Your task to perform on an android device: toggle show notifications on the lock screen Image 0: 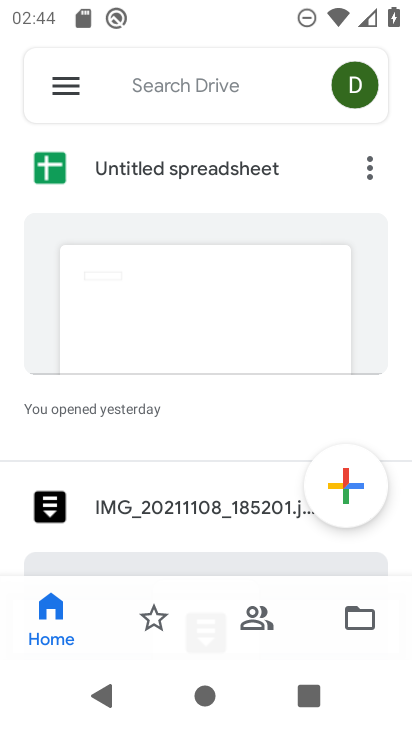
Step 0: press home button
Your task to perform on an android device: toggle show notifications on the lock screen Image 1: 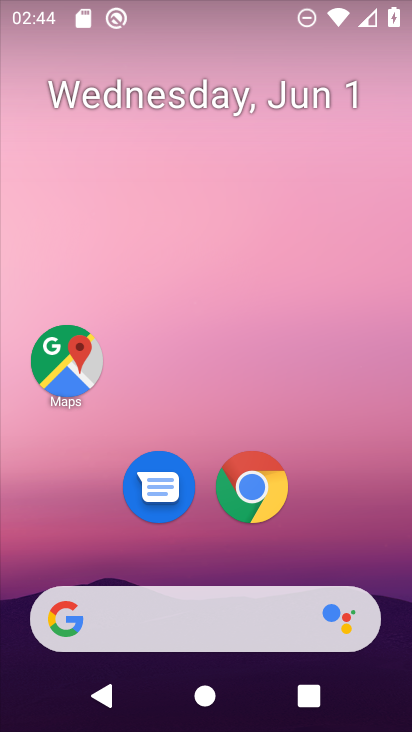
Step 1: drag from (325, 527) to (299, 163)
Your task to perform on an android device: toggle show notifications on the lock screen Image 2: 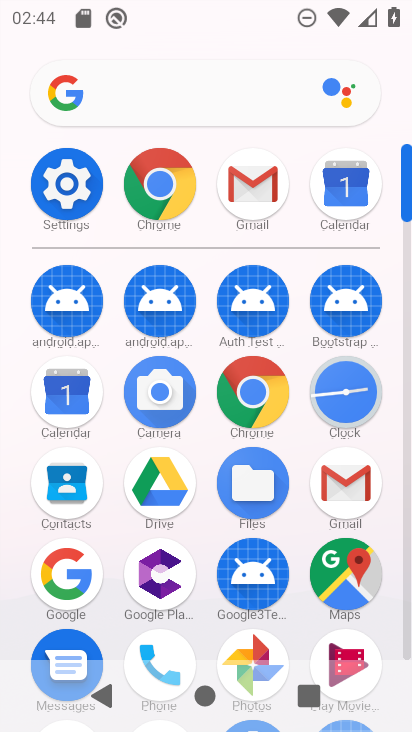
Step 2: click (54, 175)
Your task to perform on an android device: toggle show notifications on the lock screen Image 3: 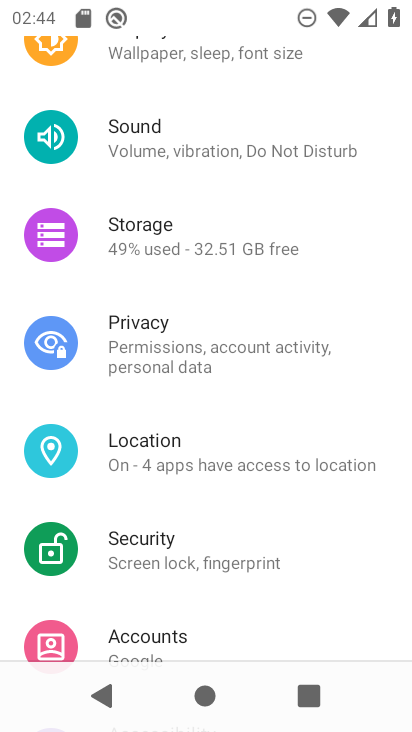
Step 3: drag from (209, 161) to (227, 603)
Your task to perform on an android device: toggle show notifications on the lock screen Image 4: 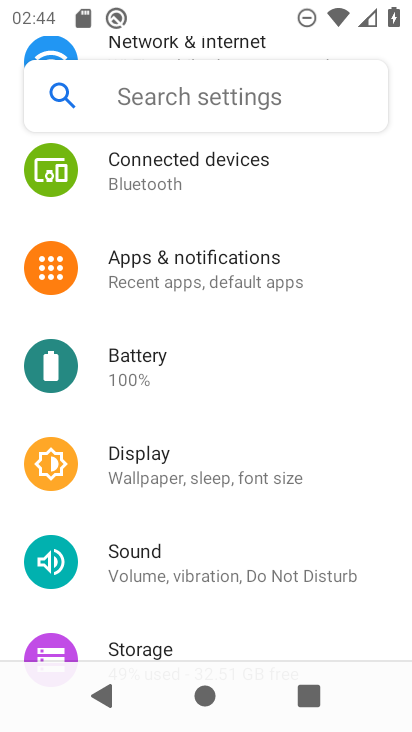
Step 4: drag from (155, 195) to (198, 582)
Your task to perform on an android device: toggle show notifications on the lock screen Image 5: 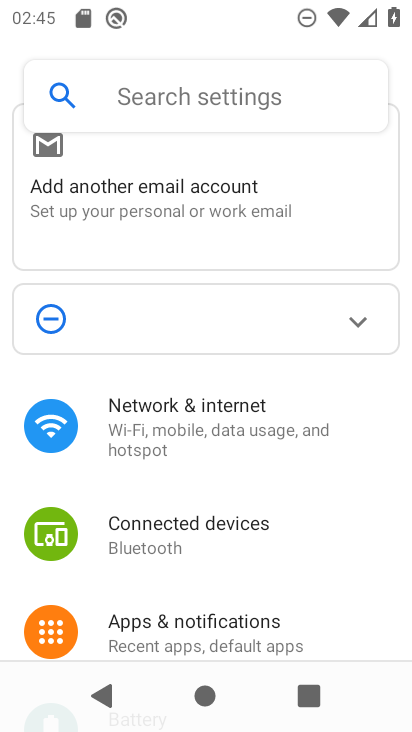
Step 5: click (250, 622)
Your task to perform on an android device: toggle show notifications on the lock screen Image 6: 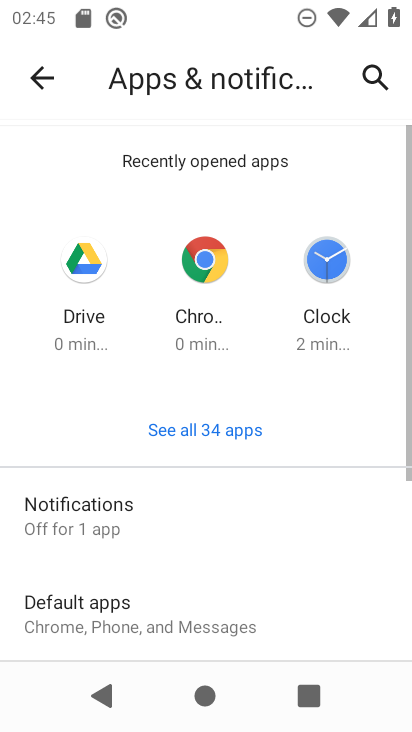
Step 6: drag from (237, 544) to (252, 248)
Your task to perform on an android device: toggle show notifications on the lock screen Image 7: 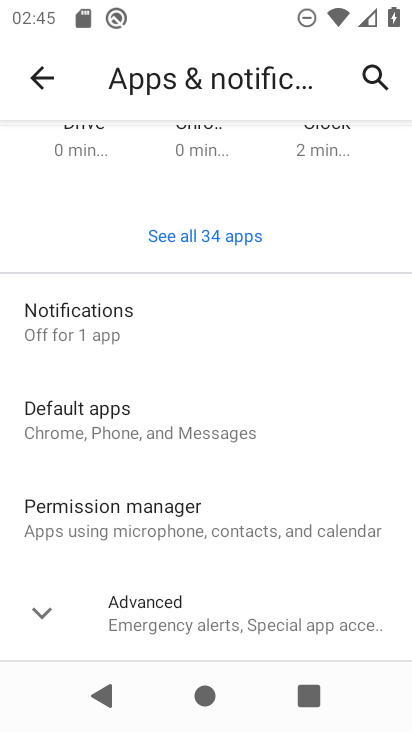
Step 7: click (138, 317)
Your task to perform on an android device: toggle show notifications on the lock screen Image 8: 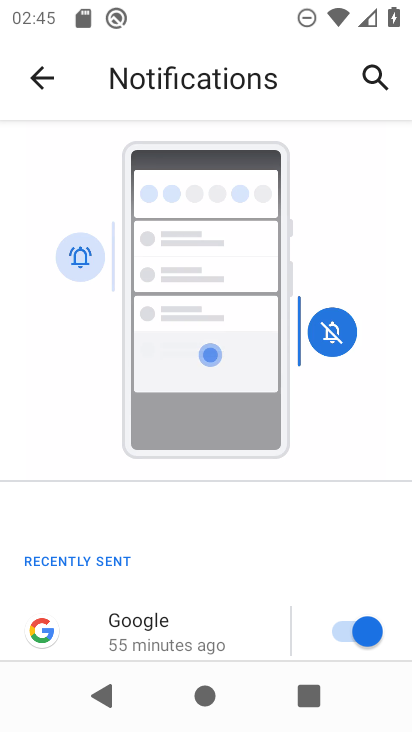
Step 8: drag from (206, 570) to (237, 207)
Your task to perform on an android device: toggle show notifications on the lock screen Image 9: 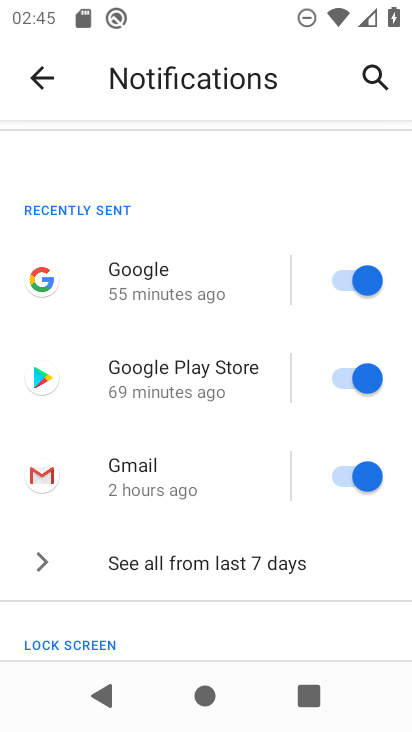
Step 9: drag from (186, 590) to (210, 264)
Your task to perform on an android device: toggle show notifications on the lock screen Image 10: 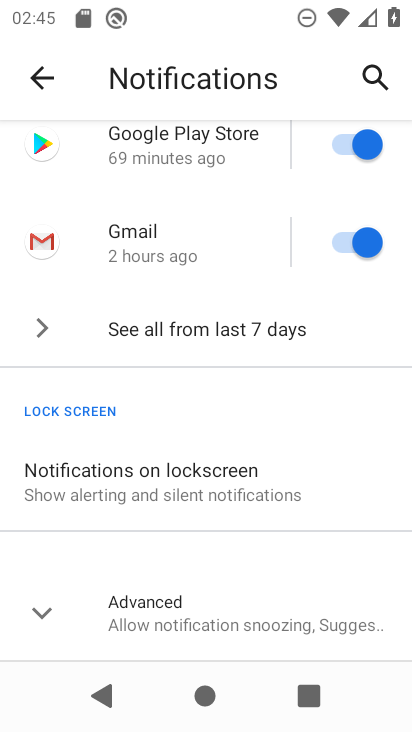
Step 10: click (166, 605)
Your task to perform on an android device: toggle show notifications on the lock screen Image 11: 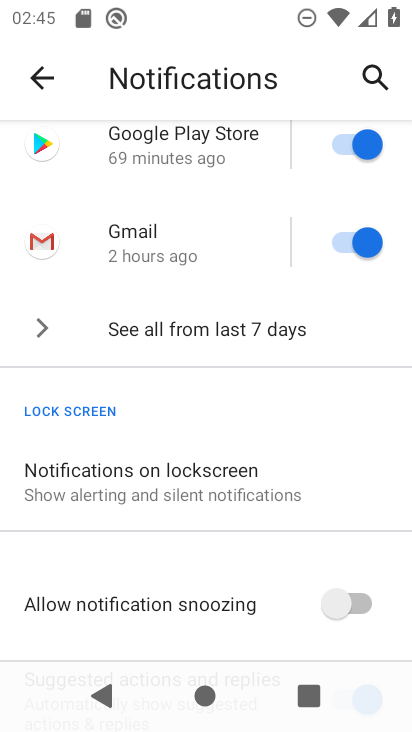
Step 11: click (173, 490)
Your task to perform on an android device: toggle show notifications on the lock screen Image 12: 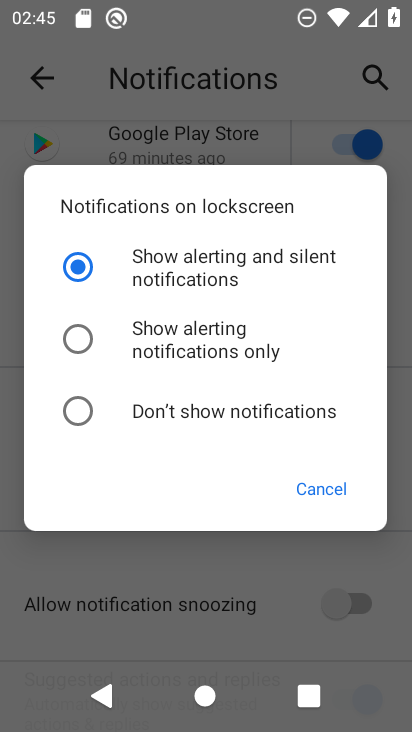
Step 12: task complete